Your task to perform on an android device: turn on the 12-hour format for clock Image 0: 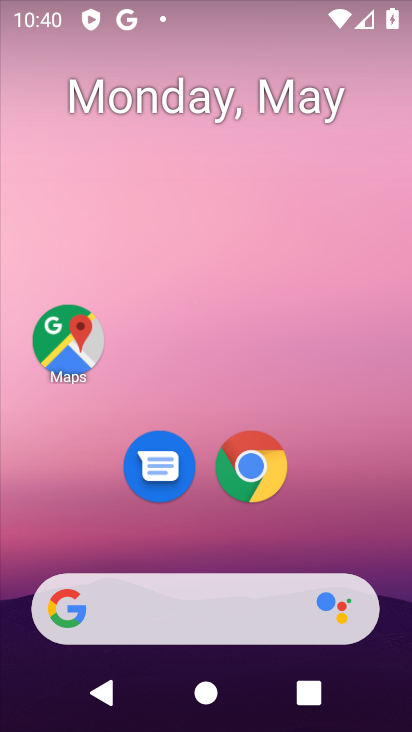
Step 0: drag from (325, 480) to (283, 32)
Your task to perform on an android device: turn on the 12-hour format for clock Image 1: 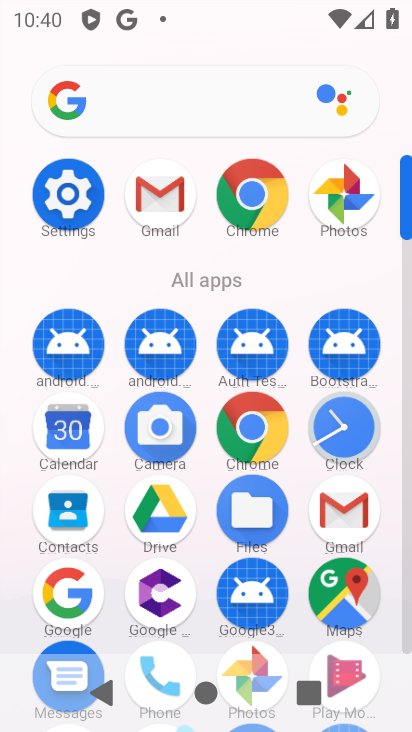
Step 1: click (358, 434)
Your task to perform on an android device: turn on the 12-hour format for clock Image 2: 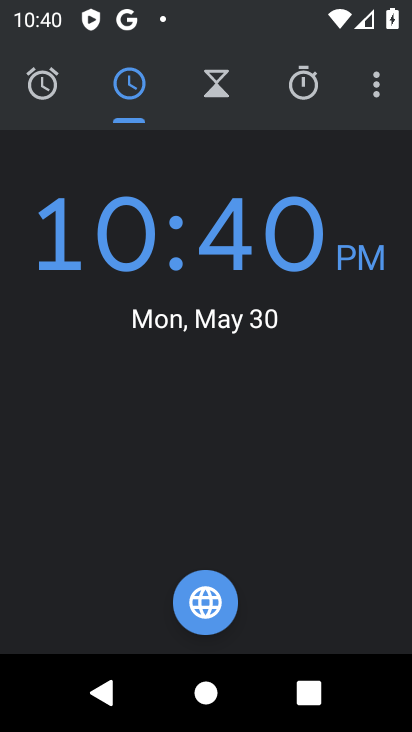
Step 2: click (373, 89)
Your task to perform on an android device: turn on the 12-hour format for clock Image 3: 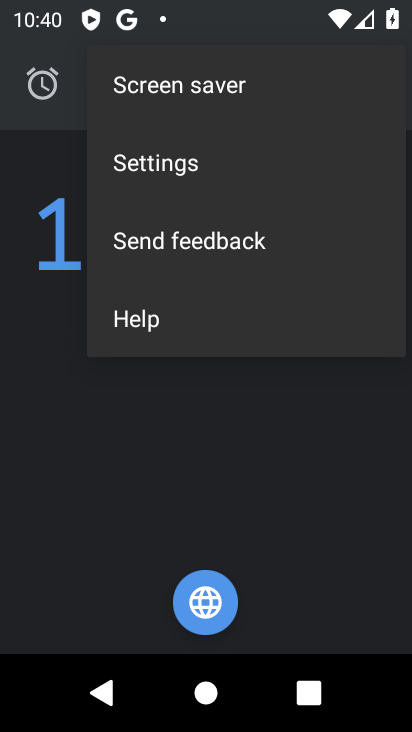
Step 3: click (174, 173)
Your task to perform on an android device: turn on the 12-hour format for clock Image 4: 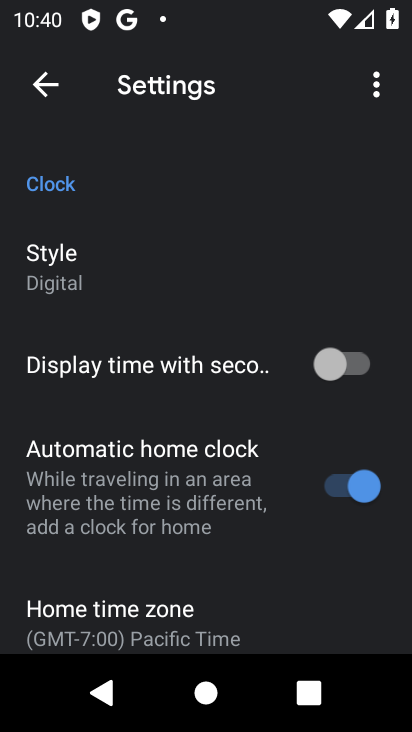
Step 4: drag from (247, 403) to (247, 262)
Your task to perform on an android device: turn on the 12-hour format for clock Image 5: 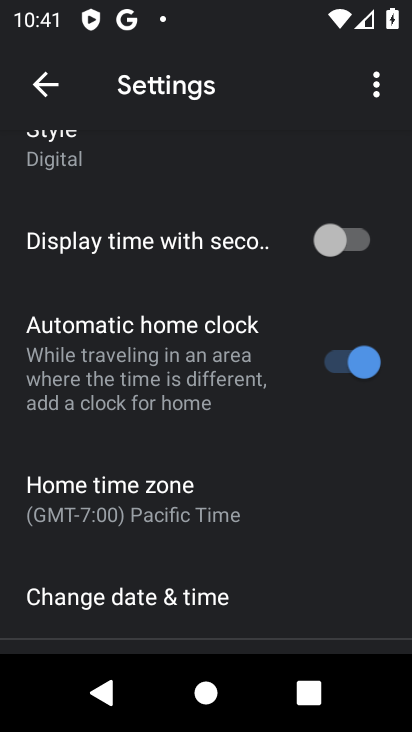
Step 5: drag from (247, 473) to (229, 198)
Your task to perform on an android device: turn on the 12-hour format for clock Image 6: 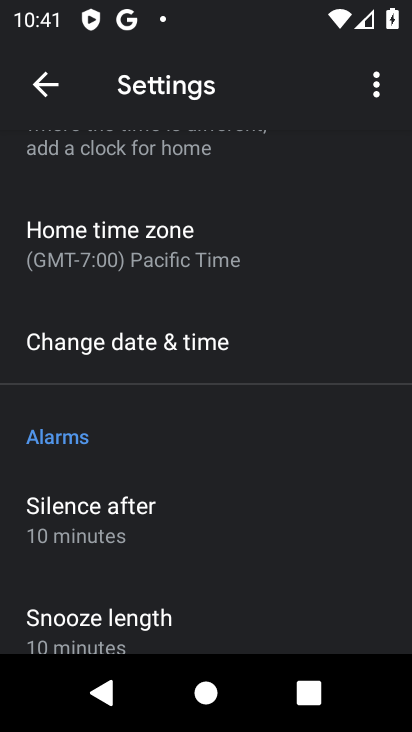
Step 6: click (180, 353)
Your task to perform on an android device: turn on the 12-hour format for clock Image 7: 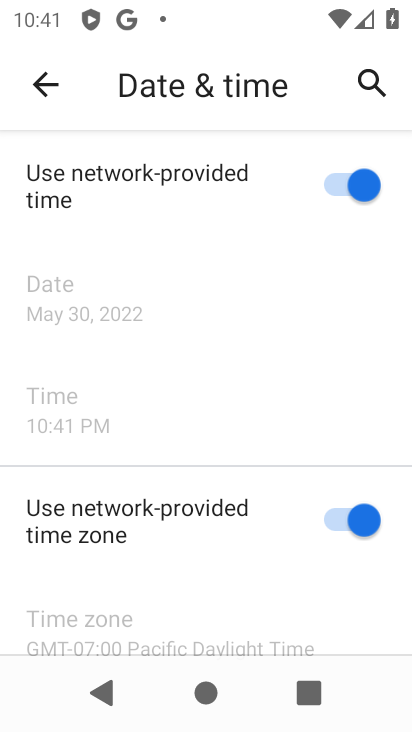
Step 7: task complete